Your task to perform on an android device: uninstall "YouTube Kids" Image 0: 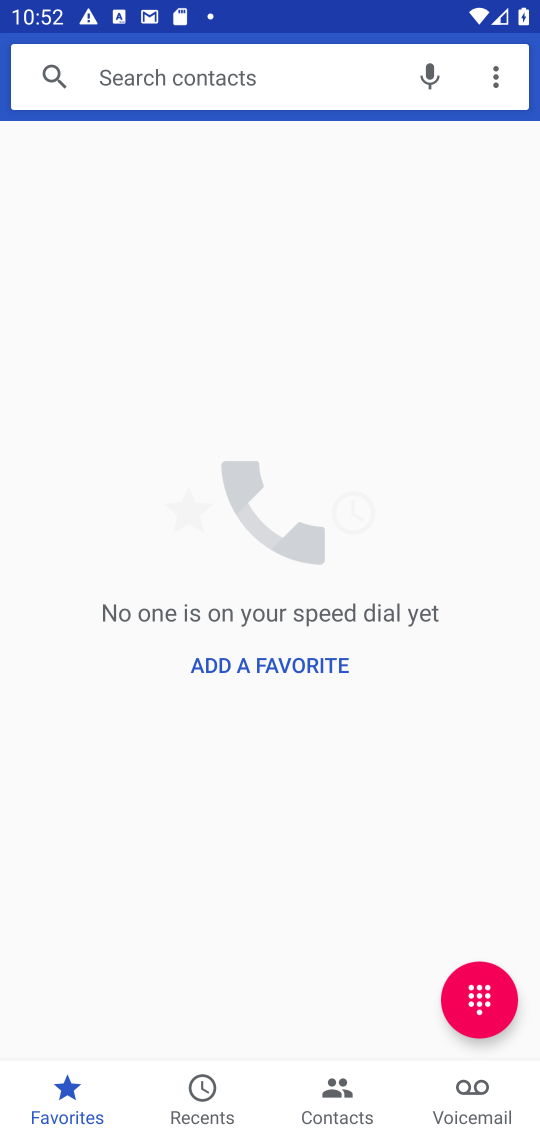
Step 0: press home button
Your task to perform on an android device: uninstall "YouTube Kids" Image 1: 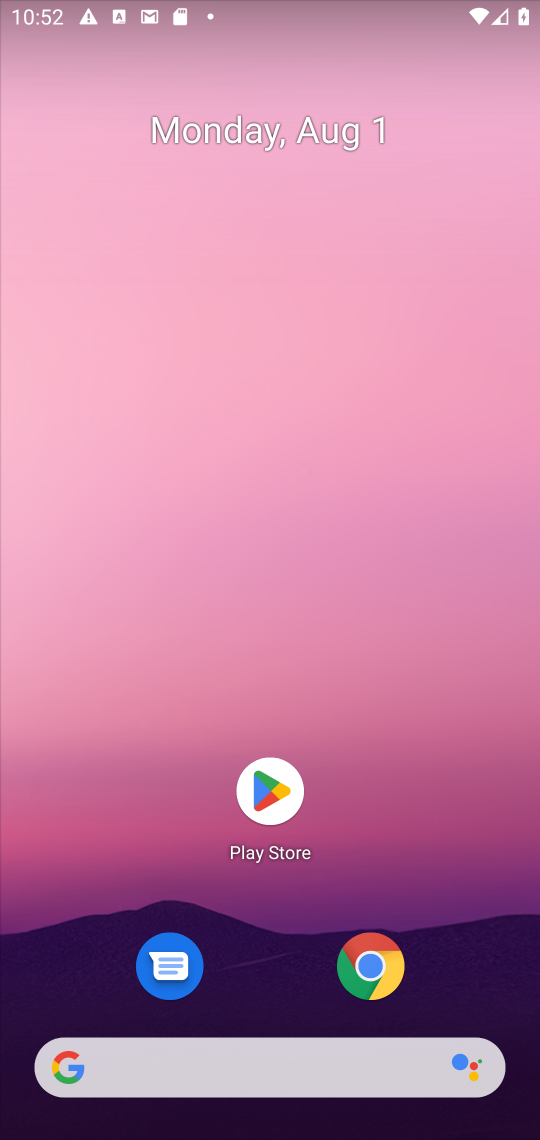
Step 1: drag from (521, 1025) to (538, 67)
Your task to perform on an android device: uninstall "YouTube Kids" Image 2: 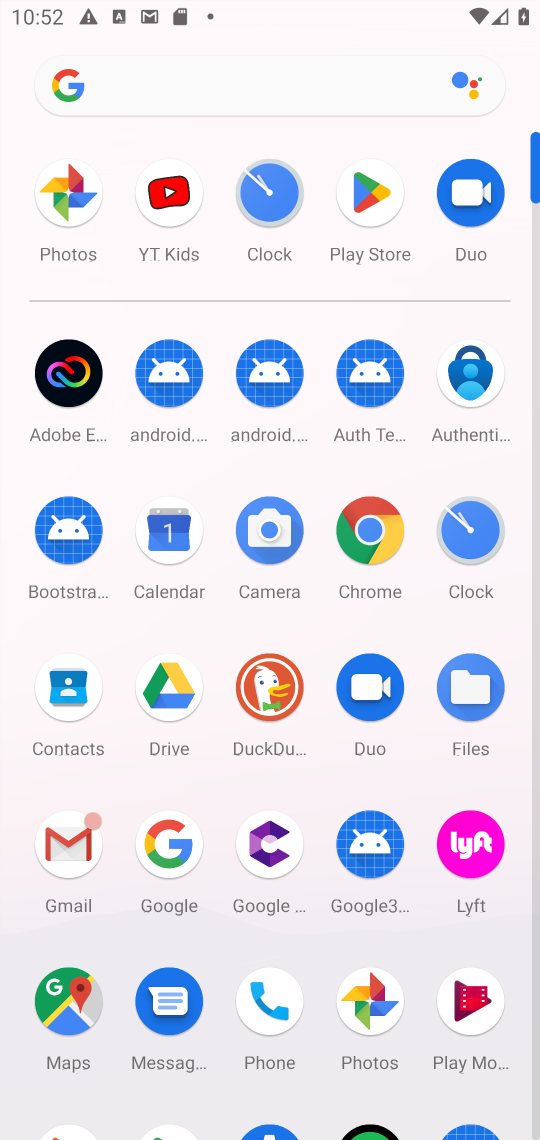
Step 2: drag from (422, 949) to (446, 481)
Your task to perform on an android device: uninstall "YouTube Kids" Image 3: 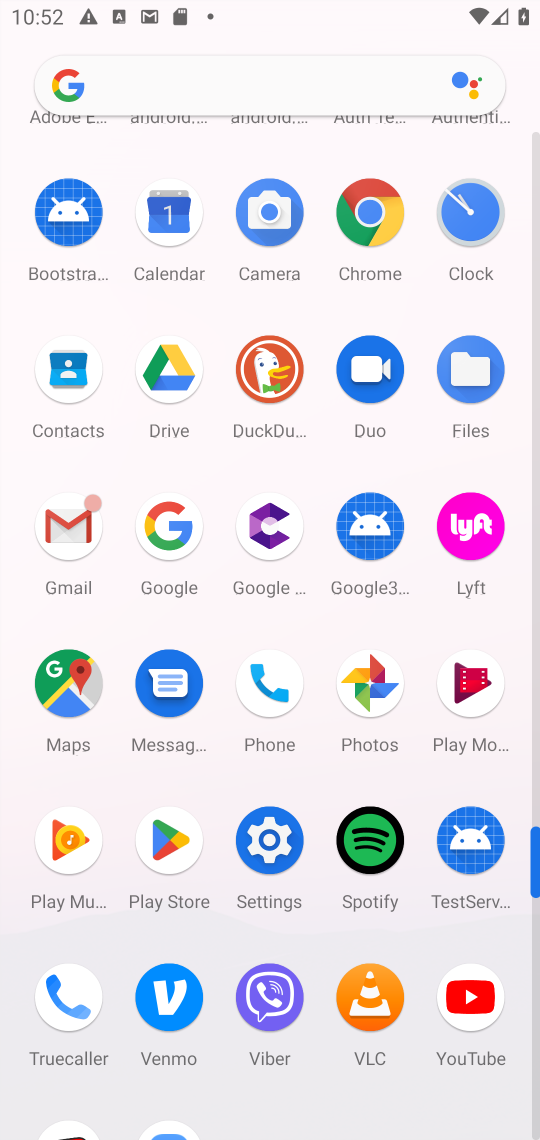
Step 3: drag from (325, 1064) to (325, 686)
Your task to perform on an android device: uninstall "YouTube Kids" Image 4: 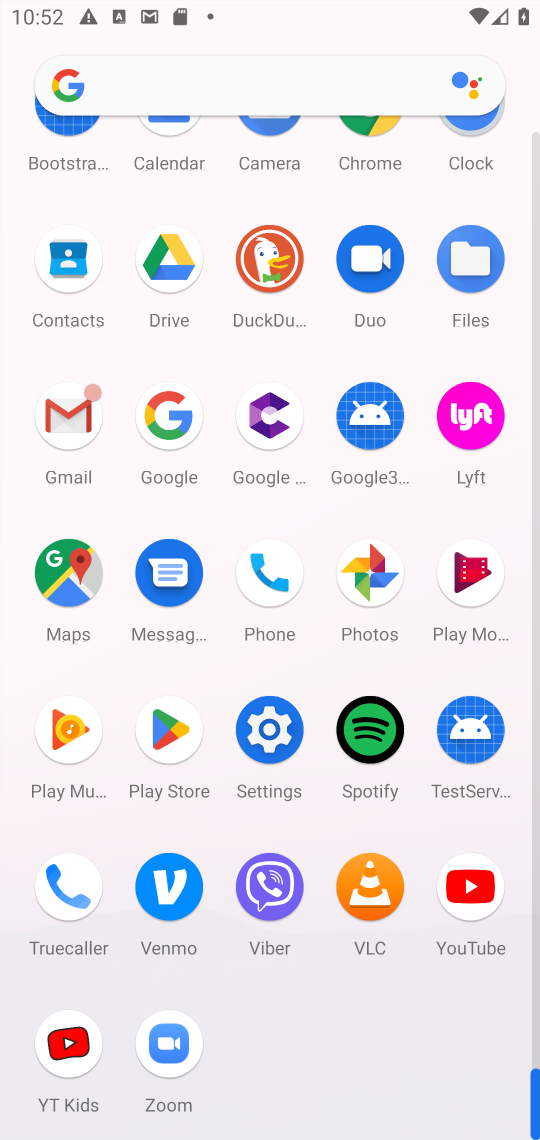
Step 4: drag from (66, 1033) to (385, 72)
Your task to perform on an android device: uninstall "YouTube Kids" Image 5: 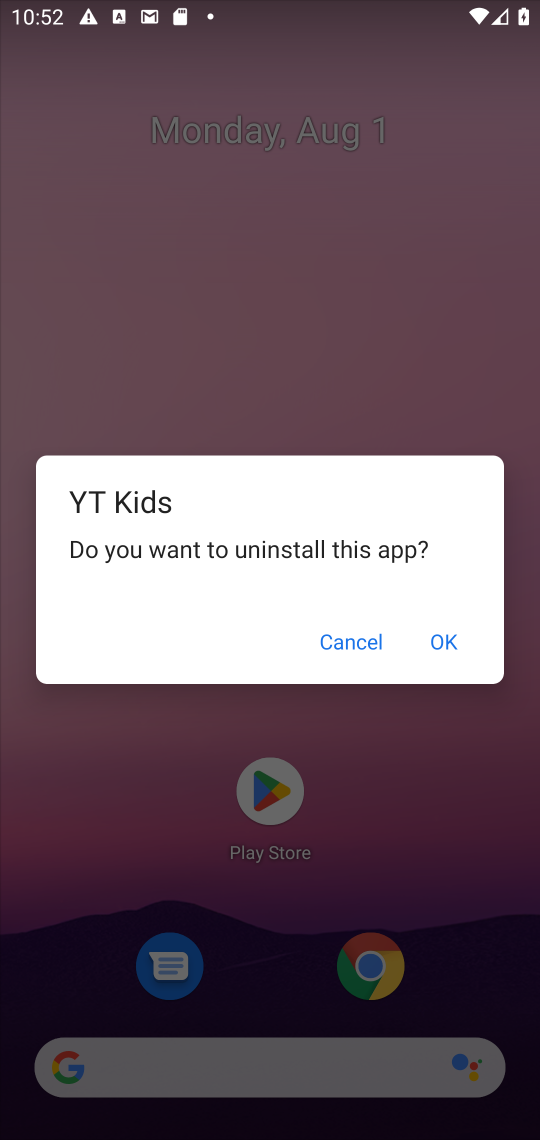
Step 5: click (444, 635)
Your task to perform on an android device: uninstall "YouTube Kids" Image 6: 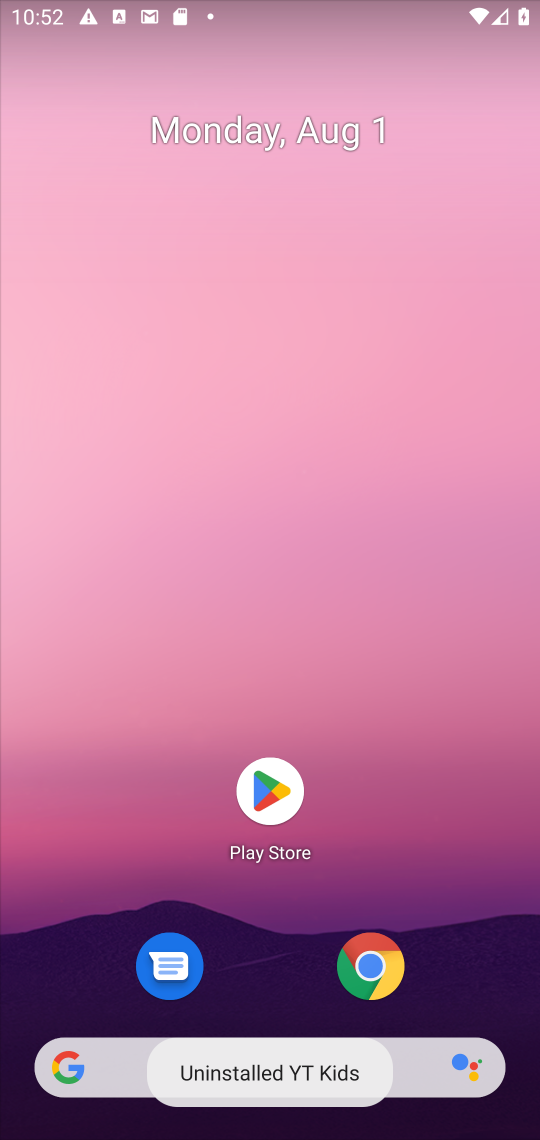
Step 6: task complete